Your task to perform on an android device: open app "Move to iOS" Image 0: 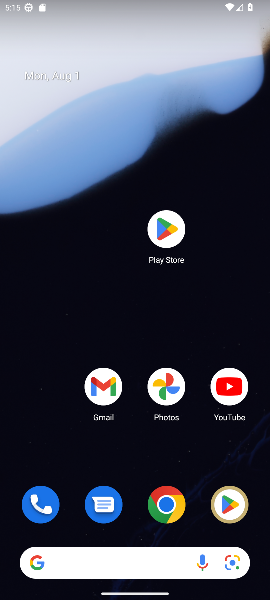
Step 0: click (171, 222)
Your task to perform on an android device: open app "Move to iOS" Image 1: 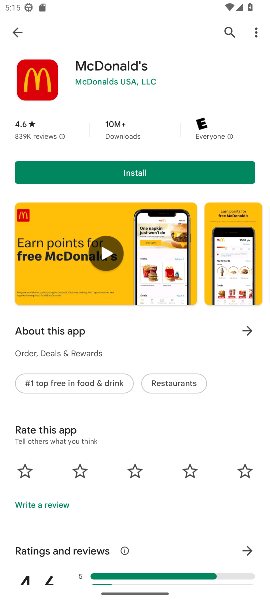
Step 1: click (227, 30)
Your task to perform on an android device: open app "Move to iOS" Image 2: 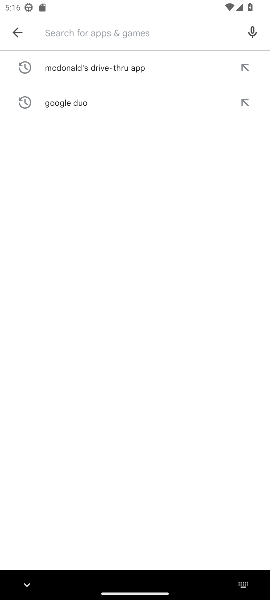
Step 2: type "Move to iOS"
Your task to perform on an android device: open app "Move to iOS" Image 3: 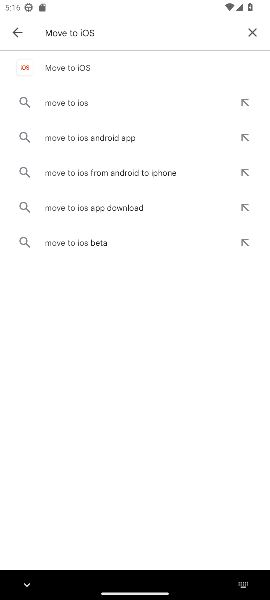
Step 3: click (58, 67)
Your task to perform on an android device: open app "Move to iOS" Image 4: 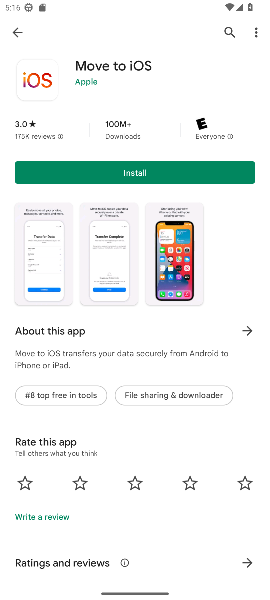
Step 4: task complete